Your task to perform on an android device: Empty the shopping cart on amazon.com. Add "usb-c to usb-b" to the cart on amazon.com Image 0: 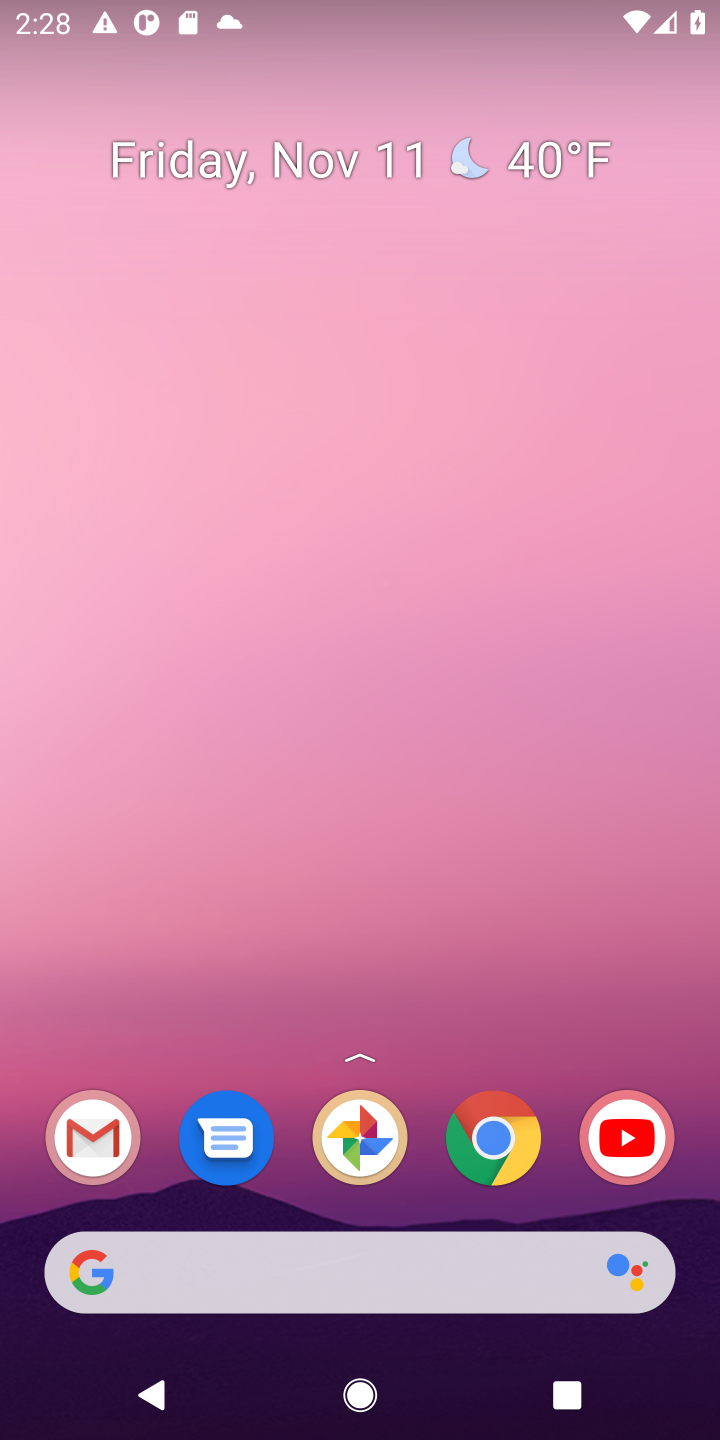
Step 0: click (483, 1117)
Your task to perform on an android device: Empty the shopping cart on amazon.com. Add "usb-c to usb-b" to the cart on amazon.com Image 1: 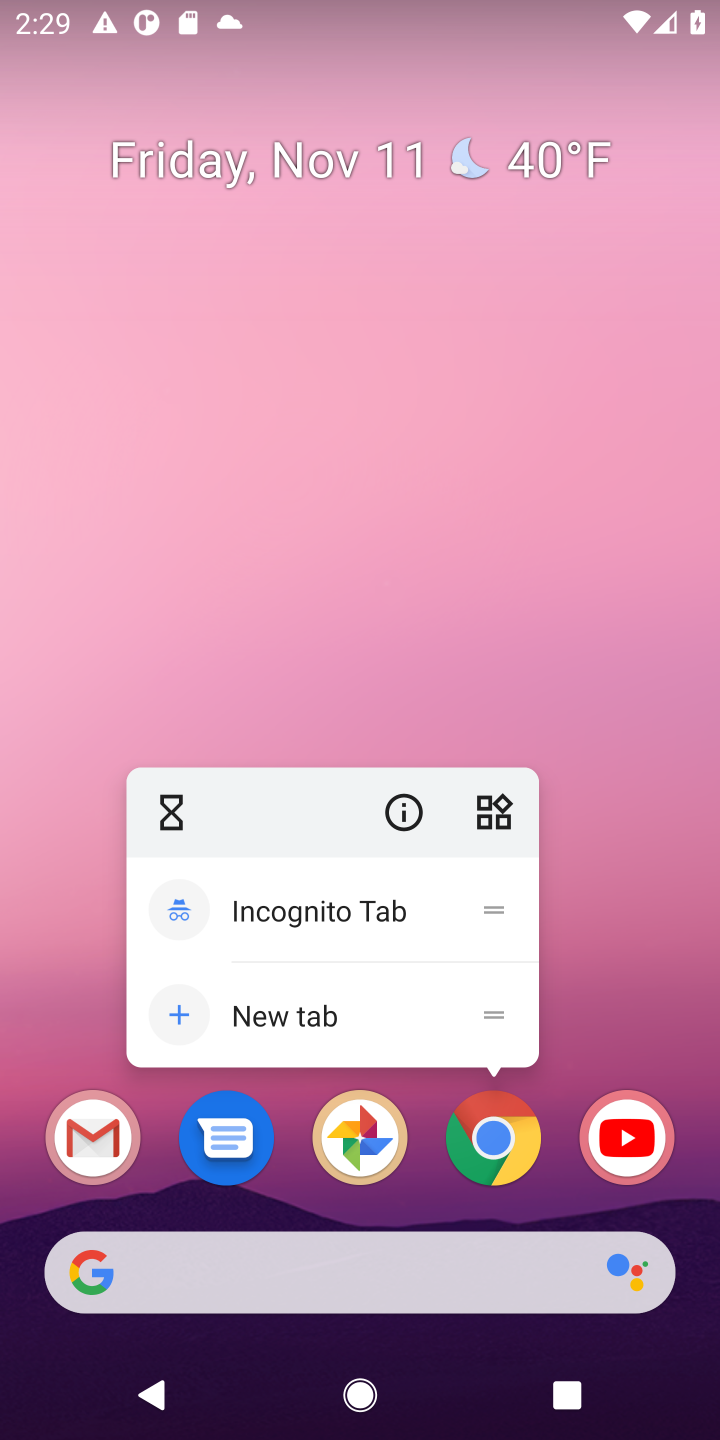
Step 1: click (499, 1108)
Your task to perform on an android device: Empty the shopping cart on amazon.com. Add "usb-c to usb-b" to the cart on amazon.com Image 2: 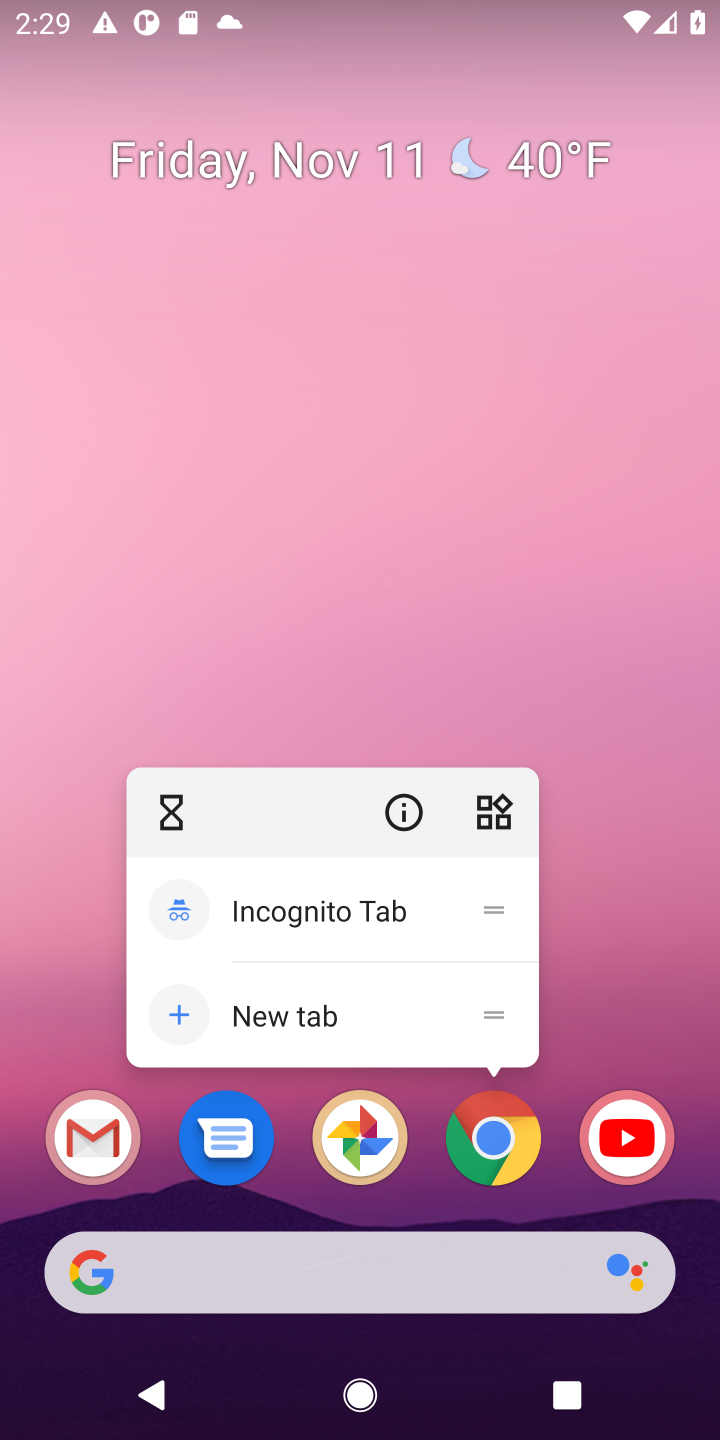
Step 2: click (499, 1108)
Your task to perform on an android device: Empty the shopping cart on amazon.com. Add "usb-c to usb-b" to the cart on amazon.com Image 3: 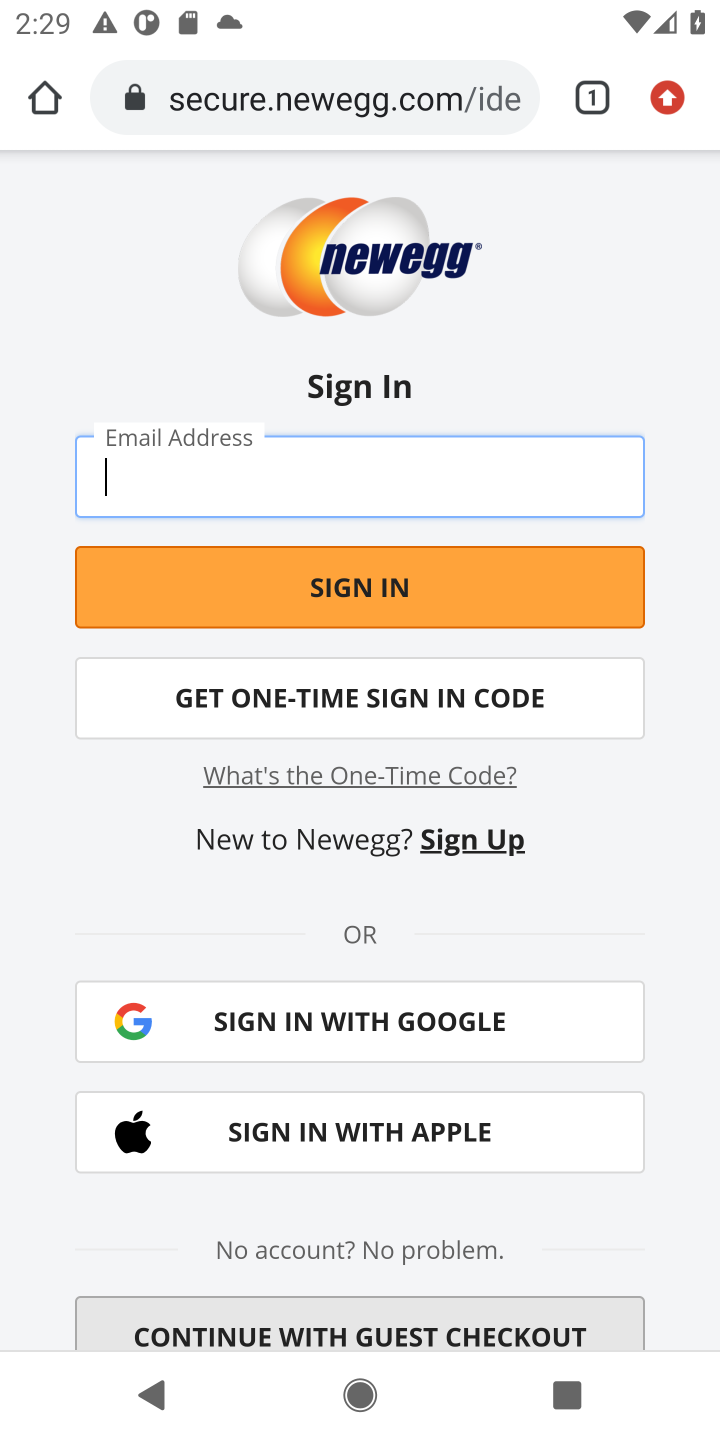
Step 3: click (460, 96)
Your task to perform on an android device: Empty the shopping cart on amazon.com. Add "usb-c to usb-b" to the cart on amazon.com Image 4: 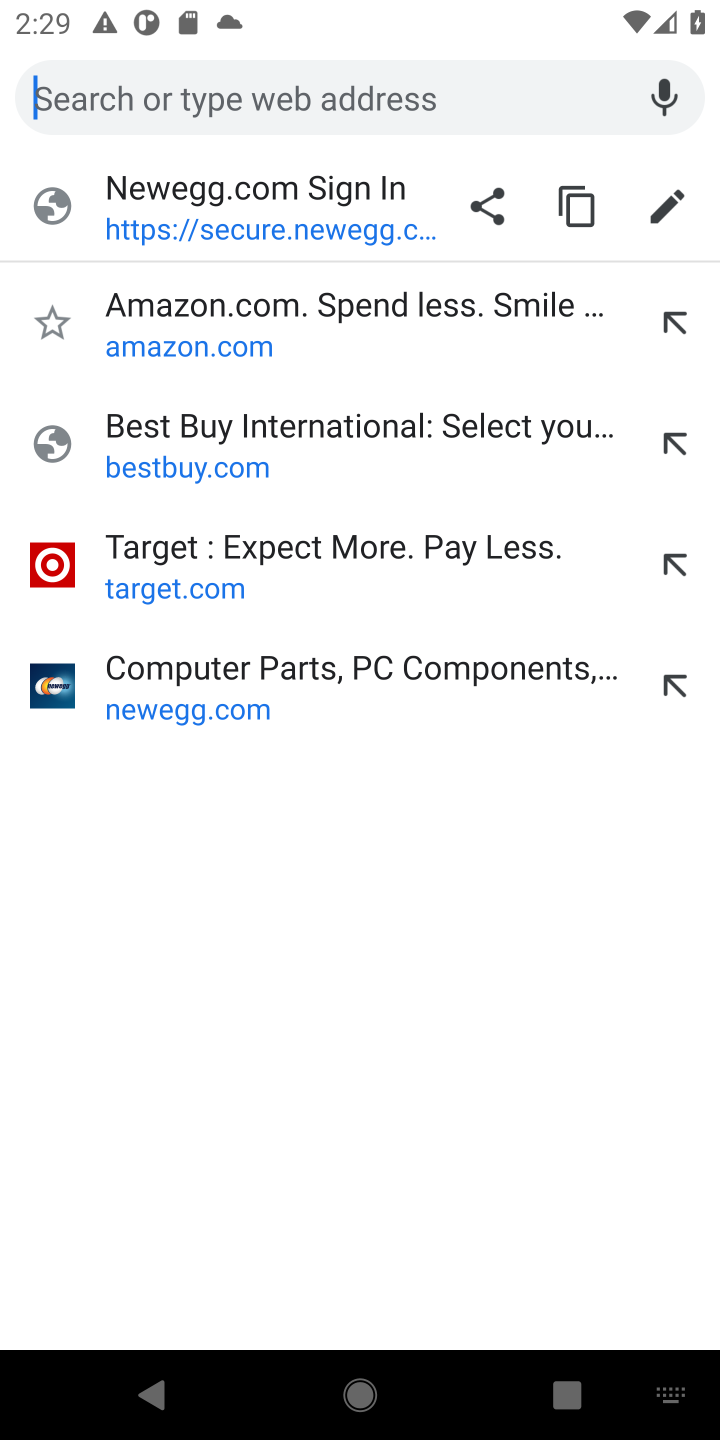
Step 4: click (463, 300)
Your task to perform on an android device: Empty the shopping cart on amazon.com. Add "usb-c to usb-b" to the cart on amazon.com Image 5: 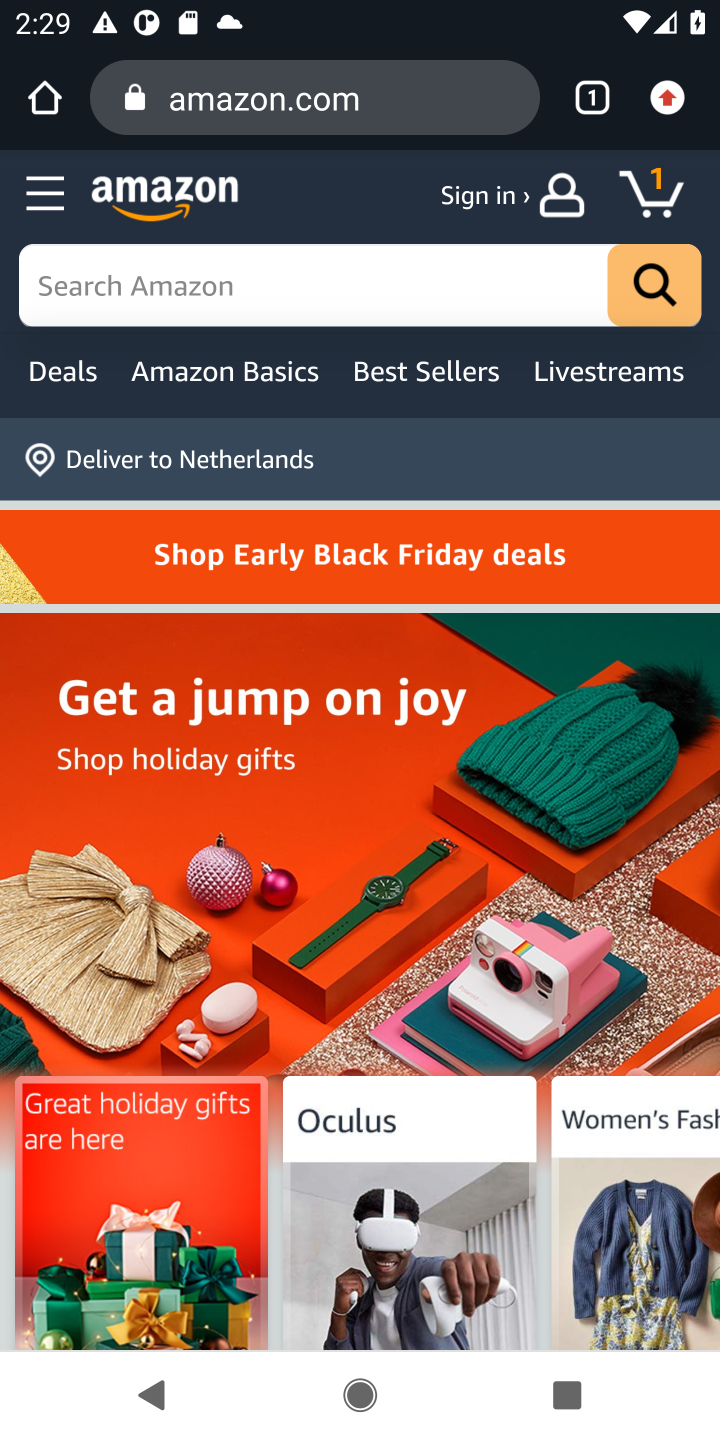
Step 5: click (663, 199)
Your task to perform on an android device: Empty the shopping cart on amazon.com. Add "usb-c to usb-b" to the cart on amazon.com Image 6: 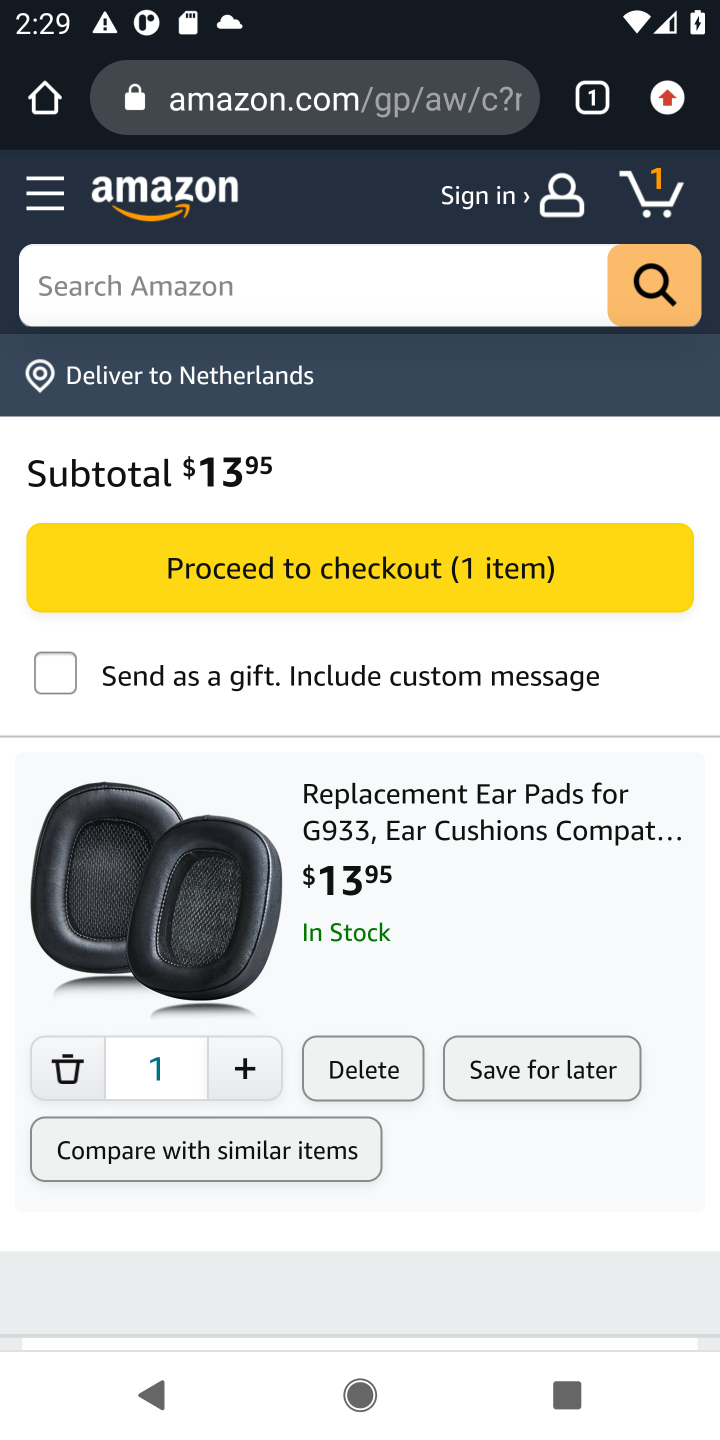
Step 6: click (375, 1058)
Your task to perform on an android device: Empty the shopping cart on amazon.com. Add "usb-c to usb-b" to the cart on amazon.com Image 7: 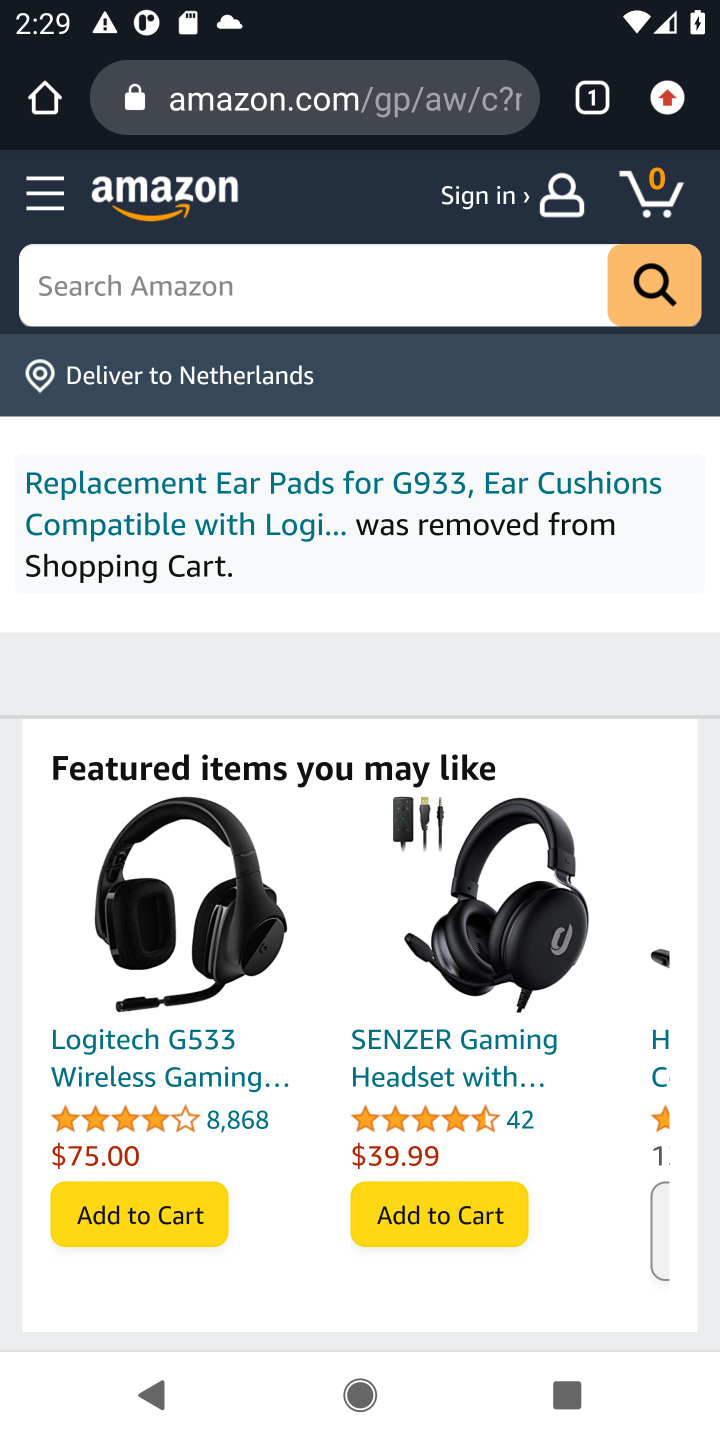
Step 7: click (424, 293)
Your task to perform on an android device: Empty the shopping cart on amazon.com. Add "usb-c to usb-b" to the cart on amazon.com Image 8: 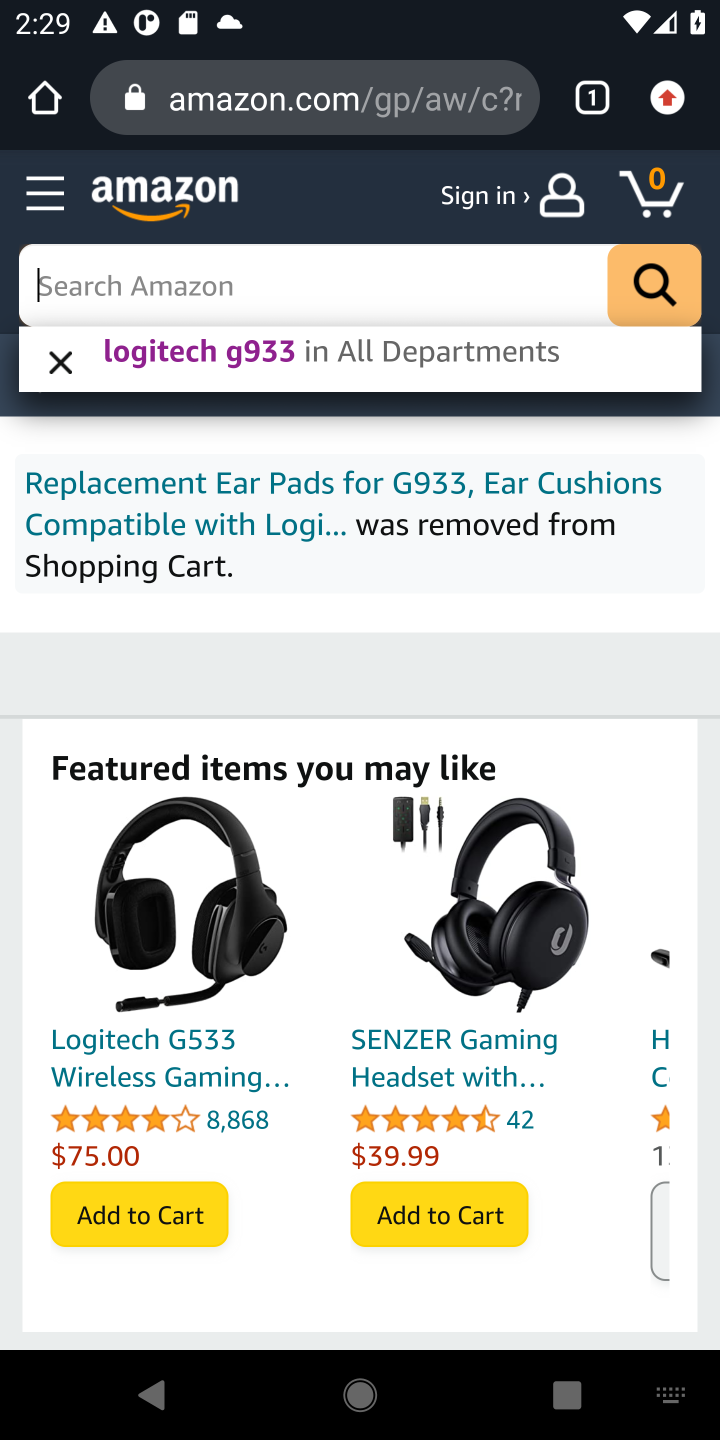
Step 8: type "usb-c to usb-b"
Your task to perform on an android device: Empty the shopping cart on amazon.com. Add "usb-c to usb-b" to the cart on amazon.com Image 9: 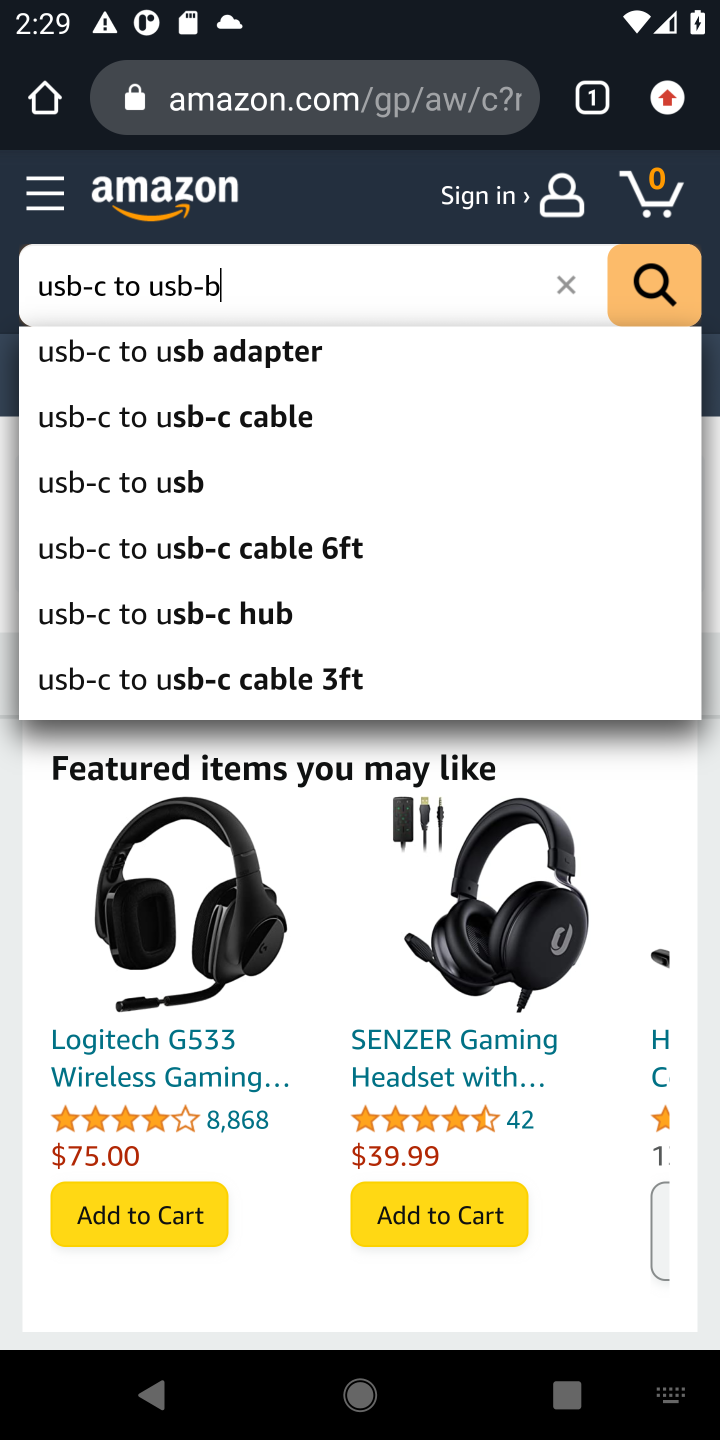
Step 9: press enter
Your task to perform on an android device: Empty the shopping cart on amazon.com. Add "usb-c to usb-b" to the cart on amazon.com Image 10: 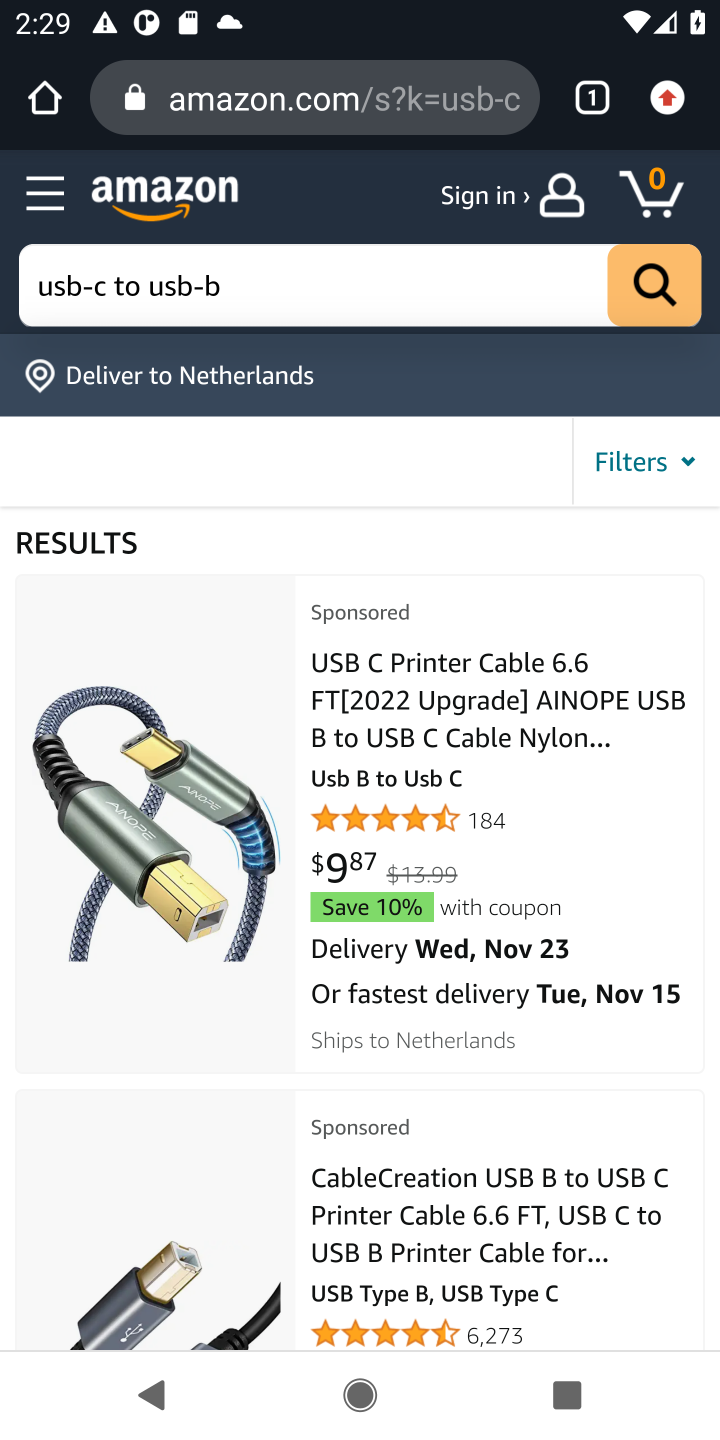
Step 10: click (172, 810)
Your task to perform on an android device: Empty the shopping cart on amazon.com. Add "usb-c to usb-b" to the cart on amazon.com Image 11: 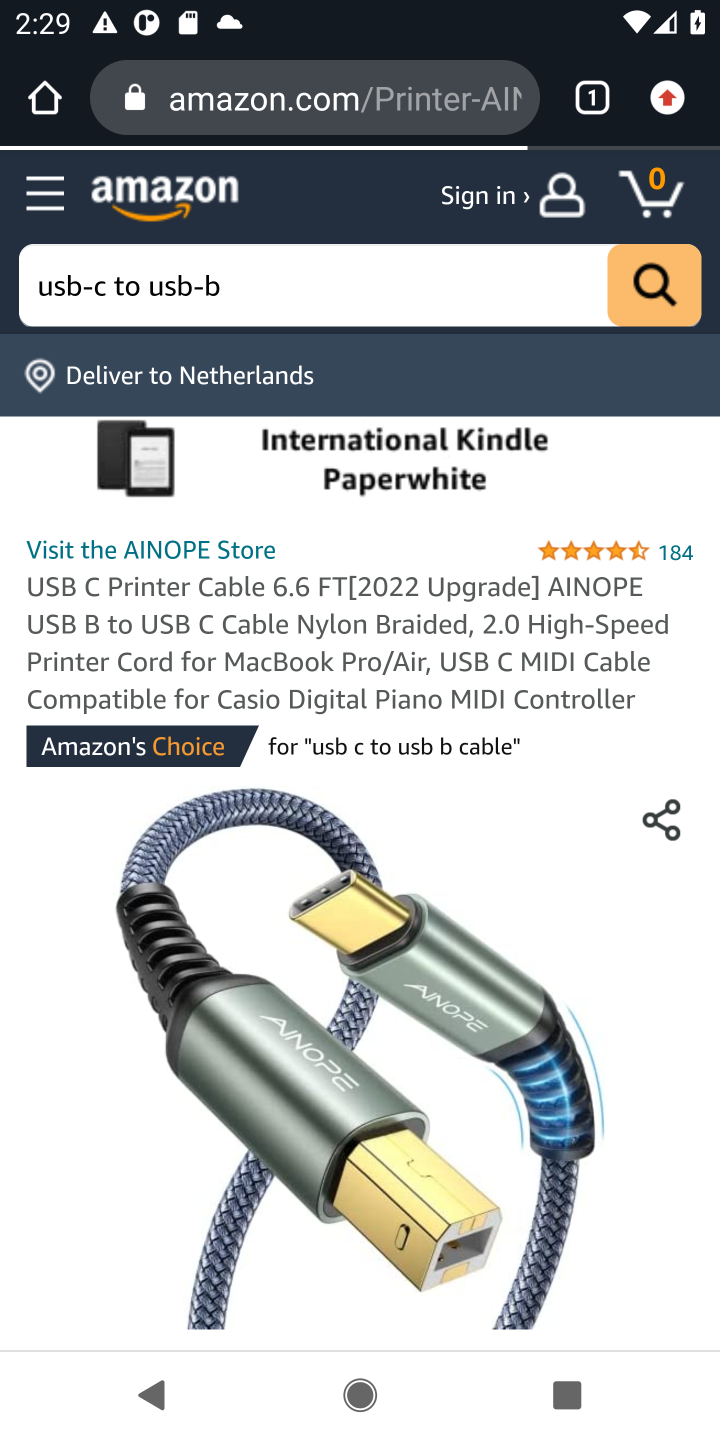
Step 11: drag from (423, 1081) to (487, 203)
Your task to perform on an android device: Empty the shopping cart on amazon.com. Add "usb-c to usb-b" to the cart on amazon.com Image 12: 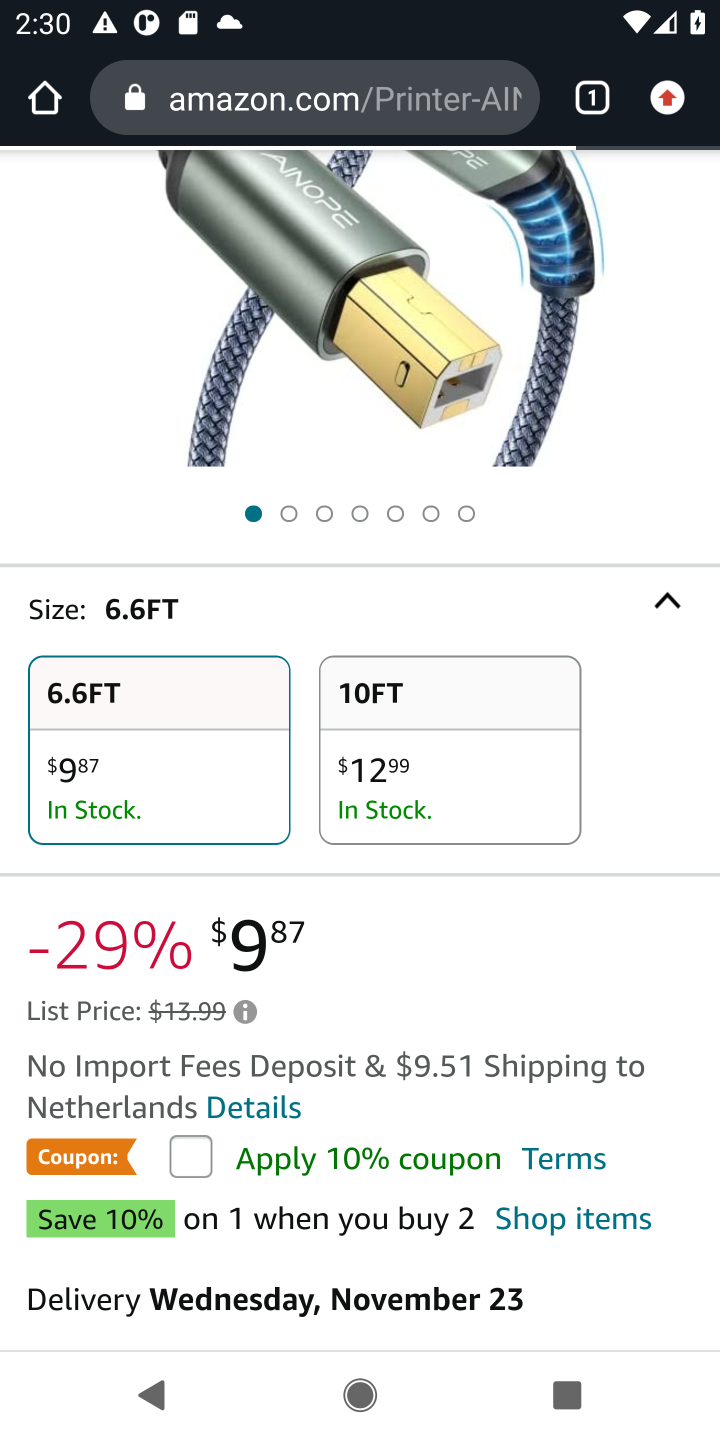
Step 12: drag from (465, 1085) to (575, 372)
Your task to perform on an android device: Empty the shopping cart on amazon.com. Add "usb-c to usb-b" to the cart on amazon.com Image 13: 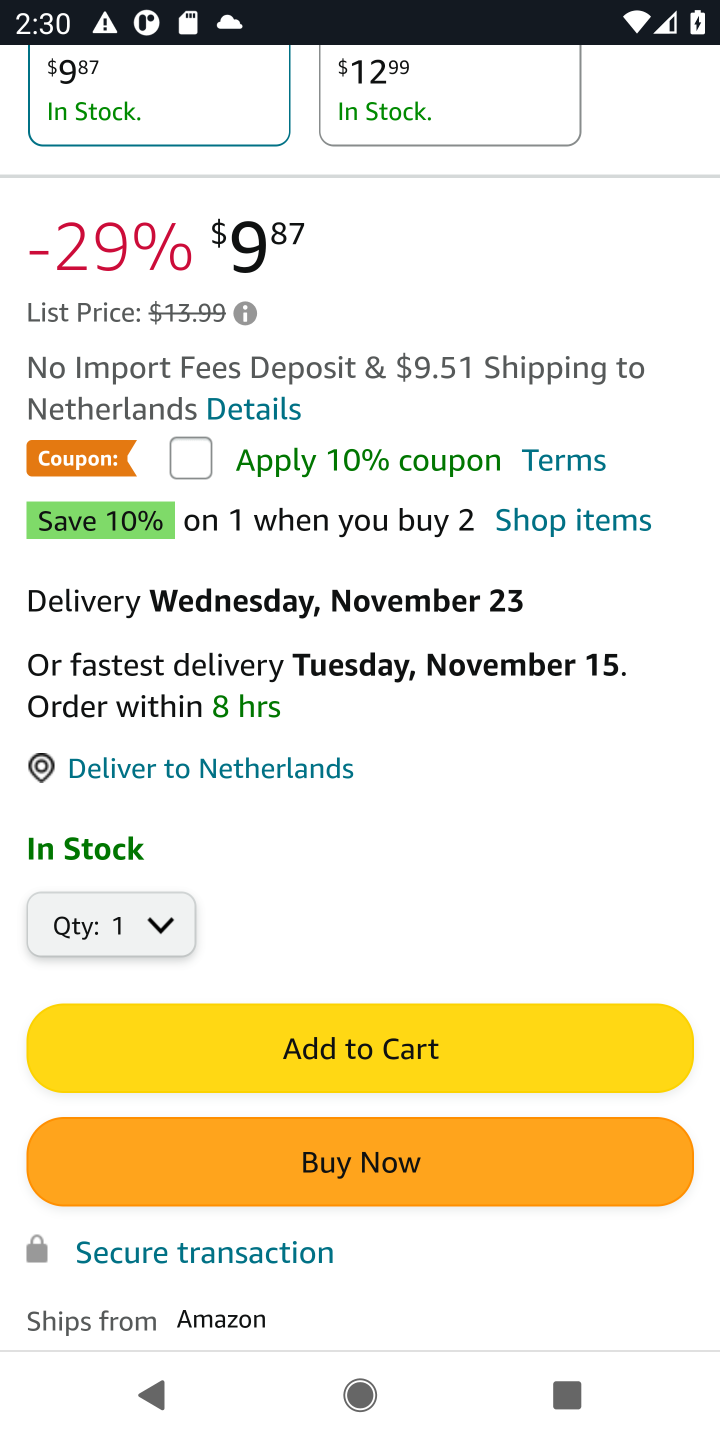
Step 13: click (409, 1043)
Your task to perform on an android device: Empty the shopping cart on amazon.com. Add "usb-c to usb-b" to the cart on amazon.com Image 14: 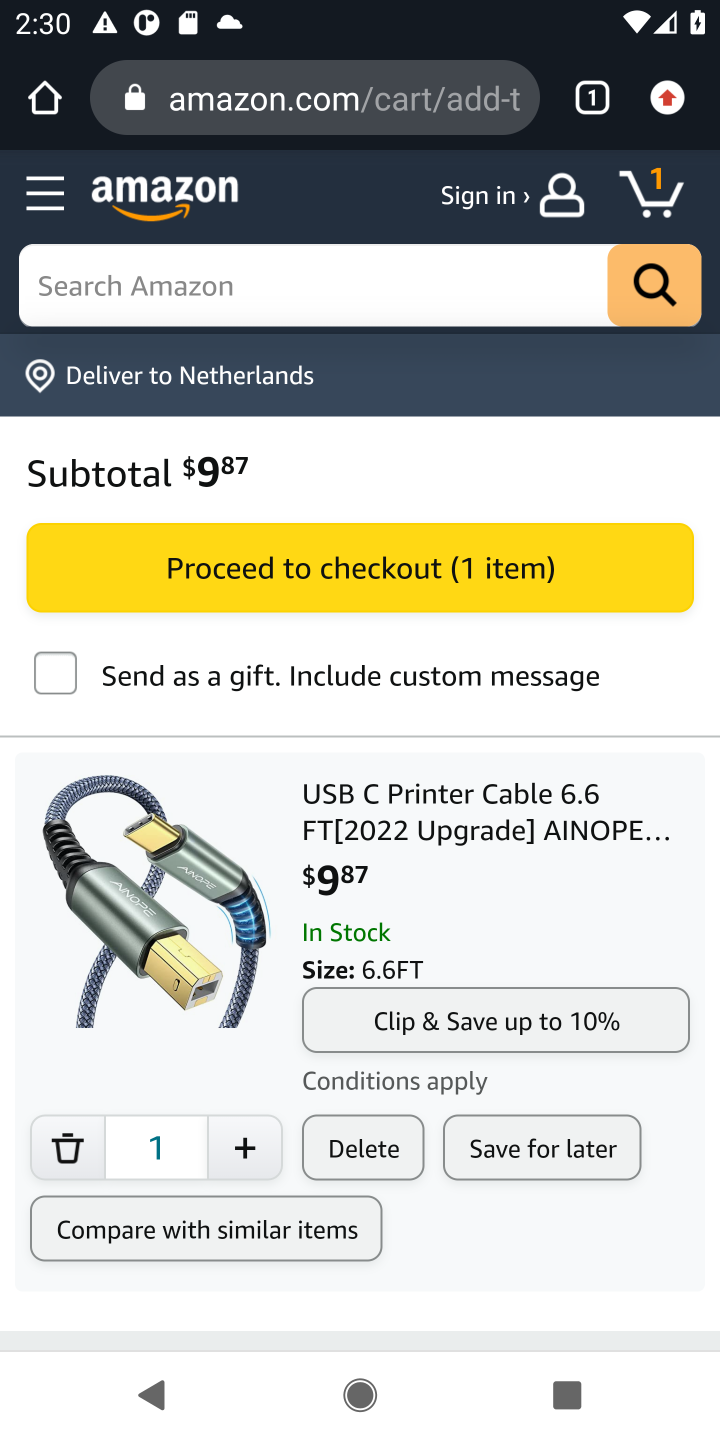
Step 14: task complete